Your task to perform on an android device: Is it going to rain today? Image 0: 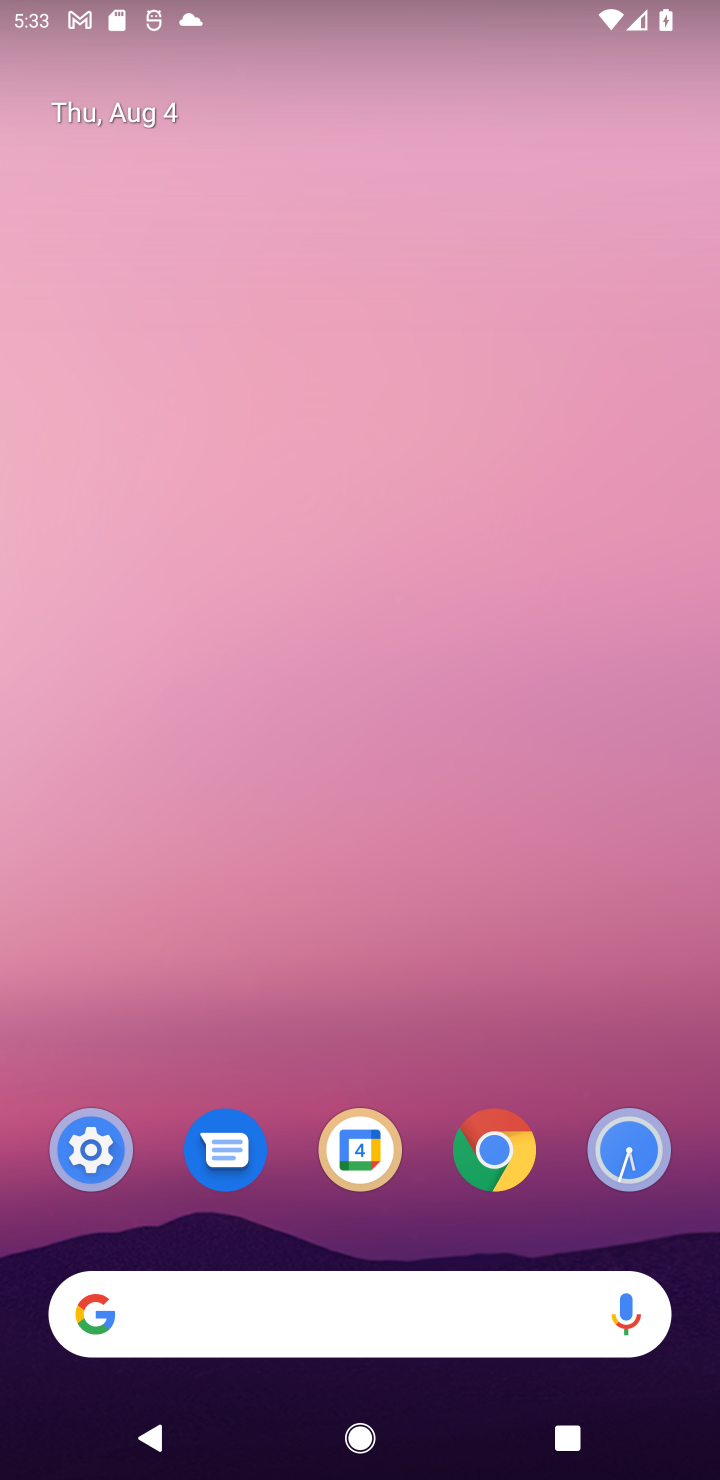
Step 0: drag from (296, 1240) to (350, 12)
Your task to perform on an android device: Is it going to rain today? Image 1: 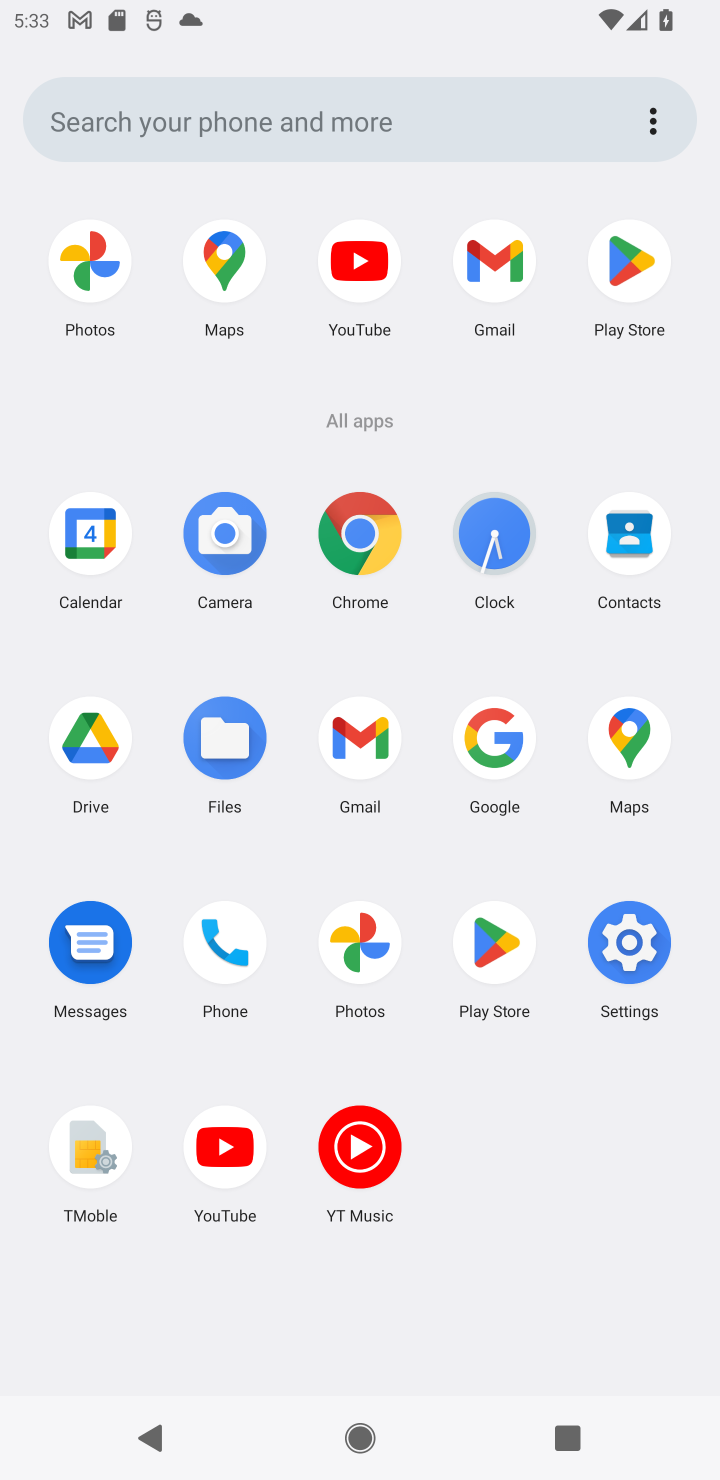
Step 1: click (387, 135)
Your task to perform on an android device: Is it going to rain today? Image 2: 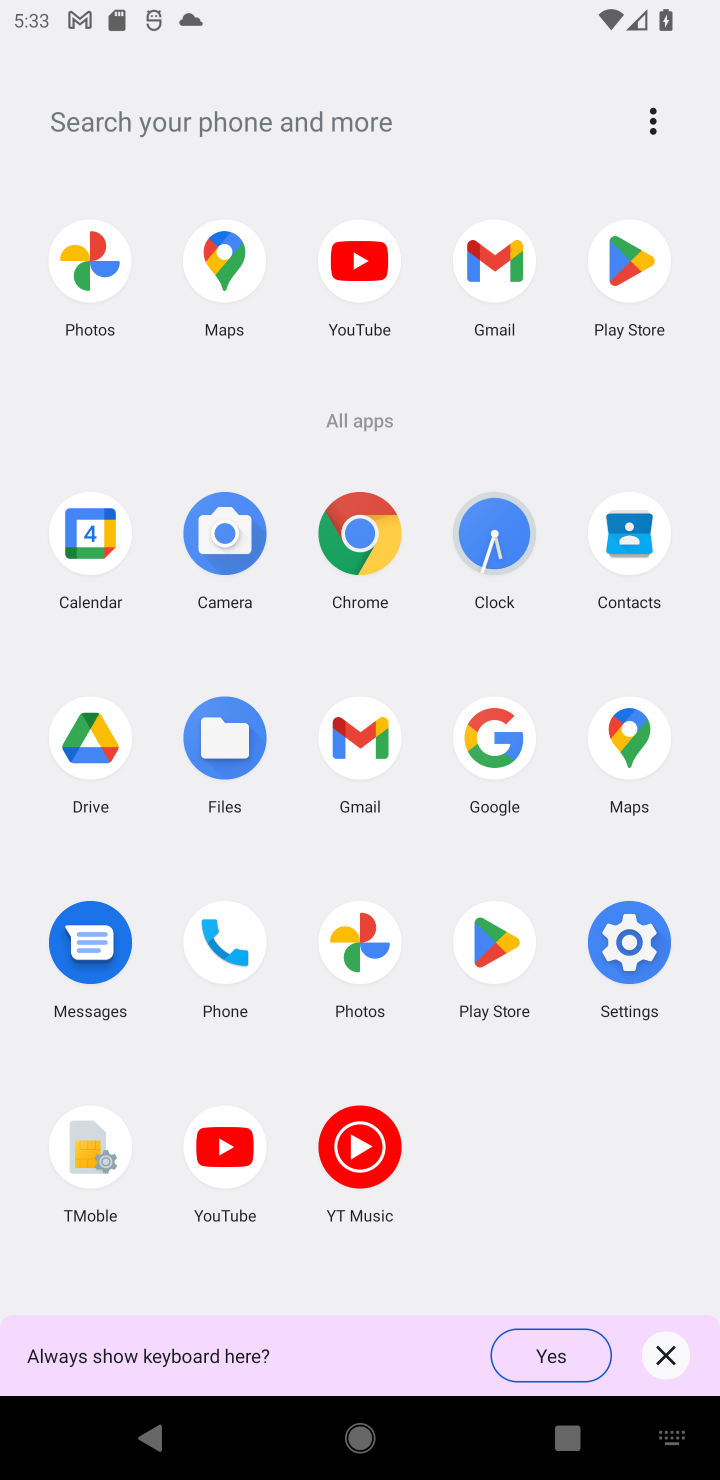
Step 2: type "weather"
Your task to perform on an android device: Is it going to rain today? Image 3: 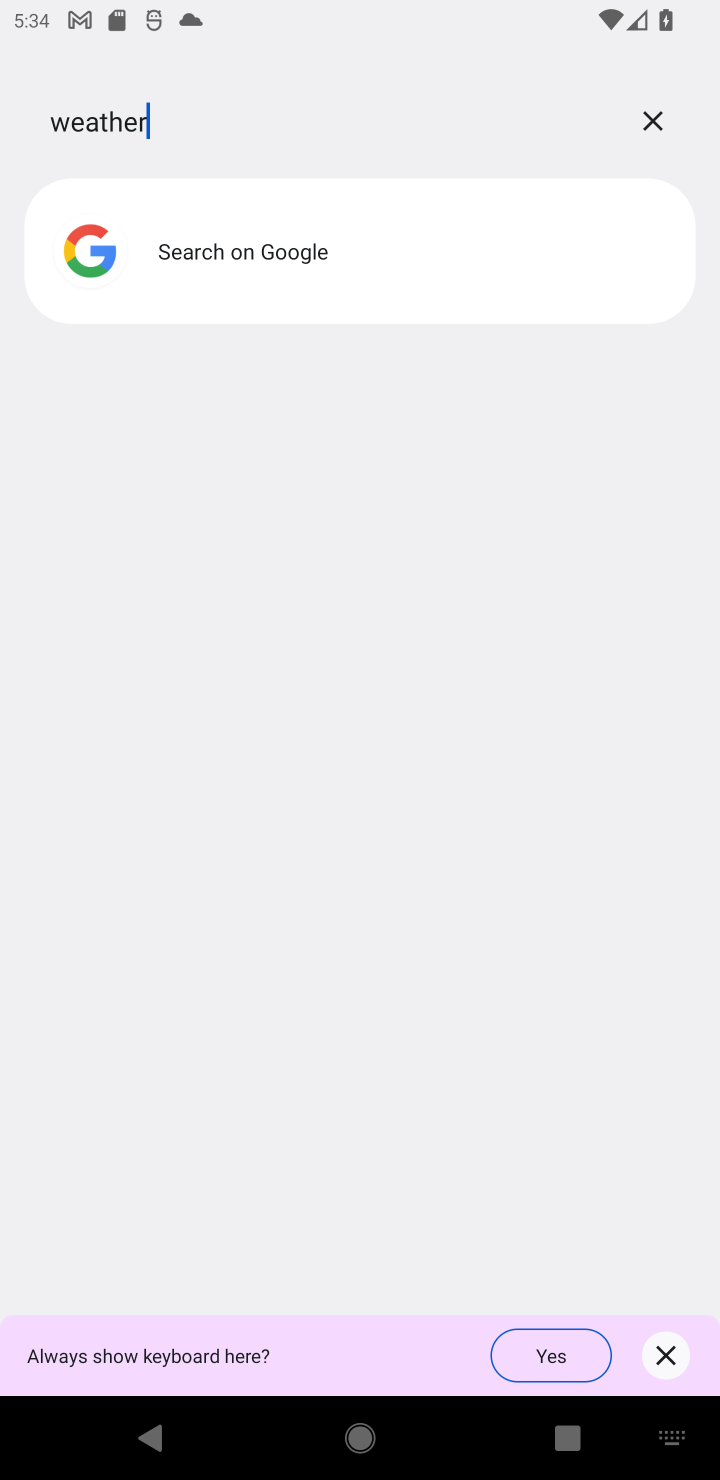
Step 3: click (277, 271)
Your task to perform on an android device: Is it going to rain today? Image 4: 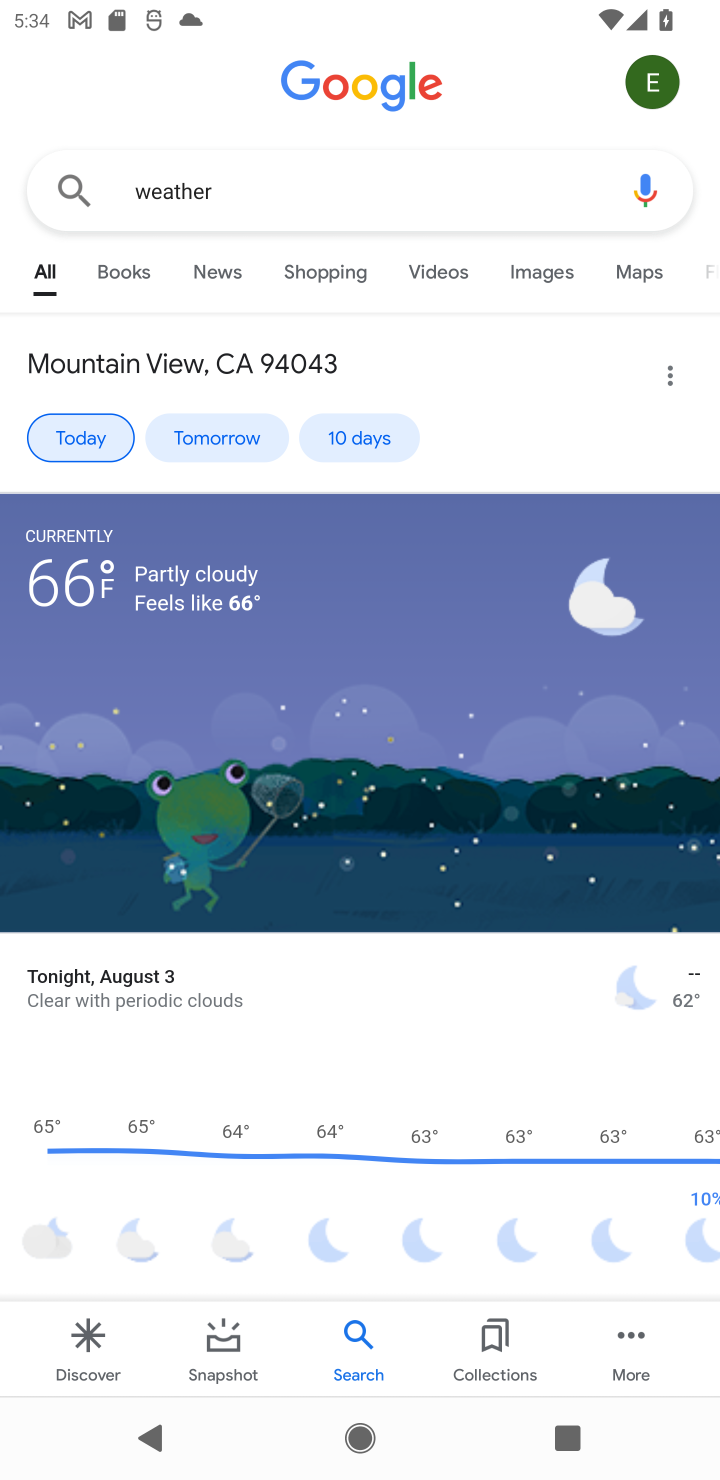
Step 4: task complete